Your task to perform on an android device: Open the stopwatch Image 0: 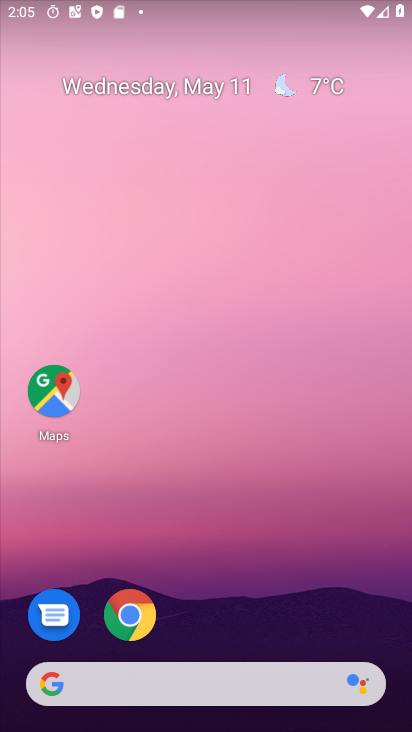
Step 0: drag from (215, 658) to (242, 182)
Your task to perform on an android device: Open the stopwatch Image 1: 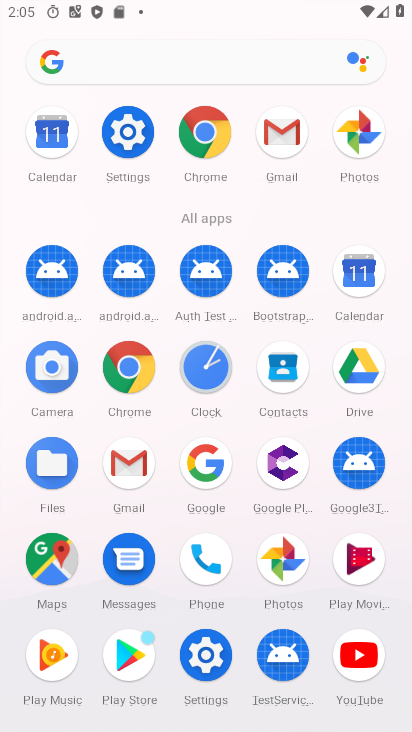
Step 1: click (206, 371)
Your task to perform on an android device: Open the stopwatch Image 2: 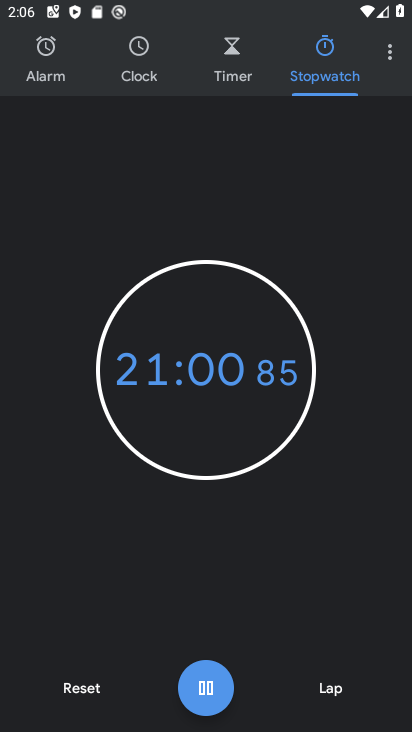
Step 2: task complete